Your task to perform on an android device: visit the assistant section in the google photos Image 0: 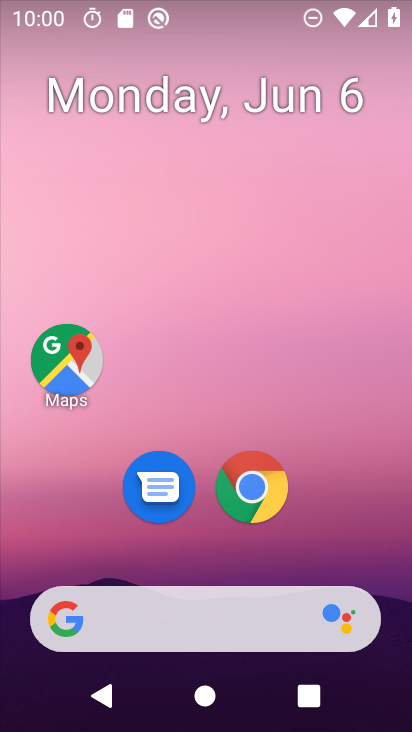
Step 0: drag from (403, 611) to (304, 42)
Your task to perform on an android device: visit the assistant section in the google photos Image 1: 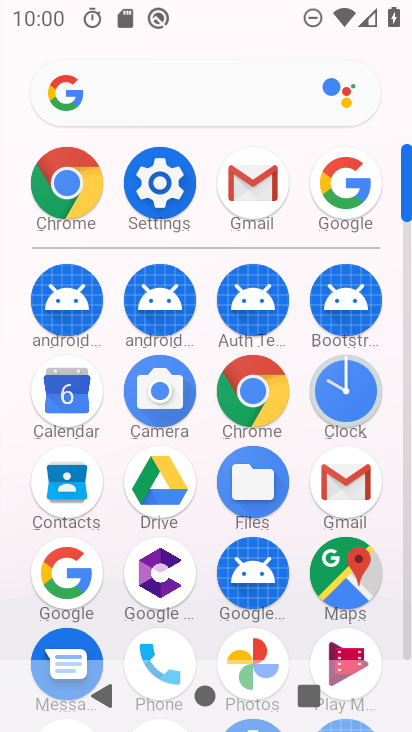
Step 1: click (260, 640)
Your task to perform on an android device: visit the assistant section in the google photos Image 2: 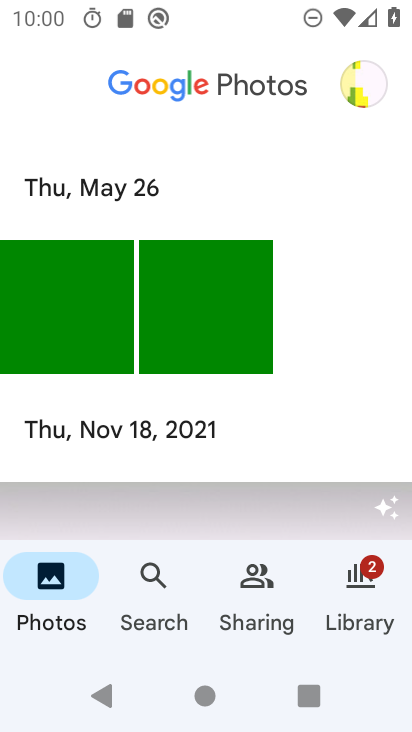
Step 2: task complete